Your task to perform on an android device: turn on the 12-hour format for clock Image 0: 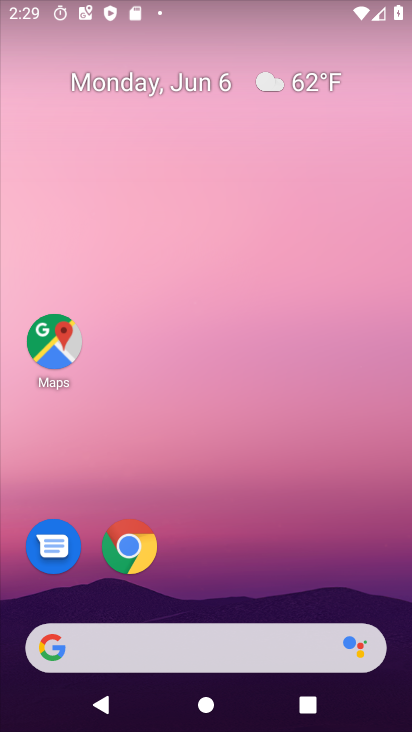
Step 0: drag from (267, 464) to (253, 118)
Your task to perform on an android device: turn on the 12-hour format for clock Image 1: 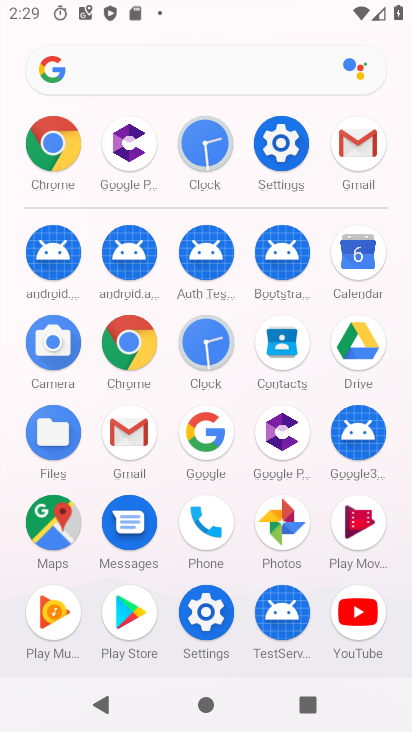
Step 1: click (205, 338)
Your task to perform on an android device: turn on the 12-hour format for clock Image 2: 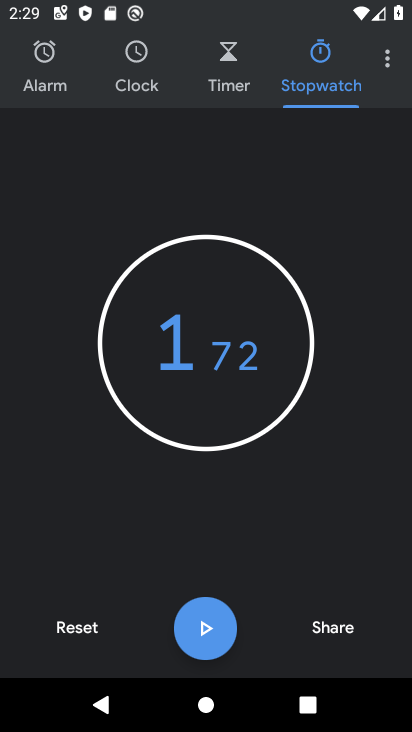
Step 2: click (390, 52)
Your task to perform on an android device: turn on the 12-hour format for clock Image 3: 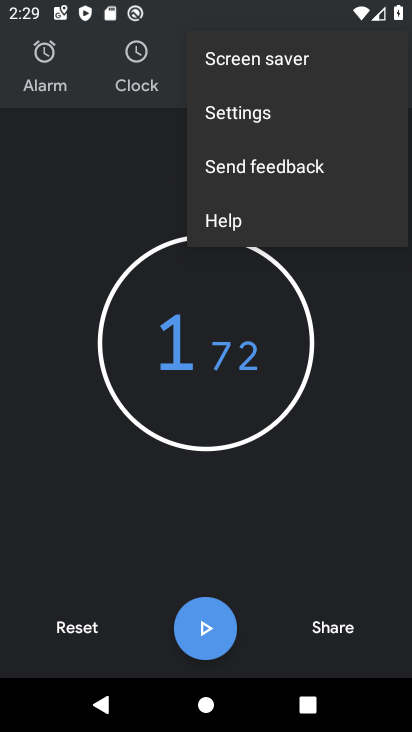
Step 3: click (275, 116)
Your task to perform on an android device: turn on the 12-hour format for clock Image 4: 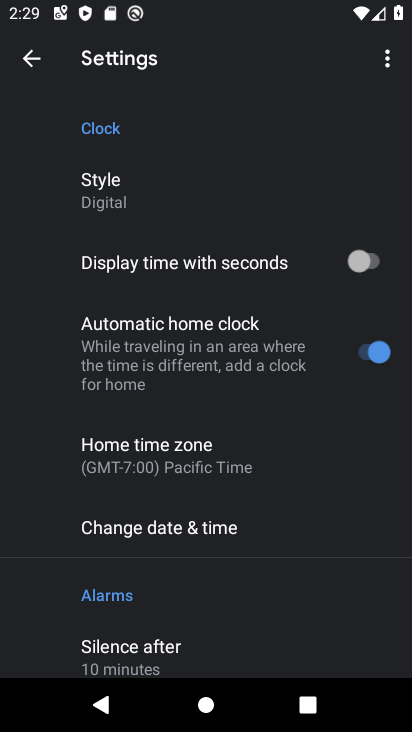
Step 4: click (183, 550)
Your task to perform on an android device: turn on the 12-hour format for clock Image 5: 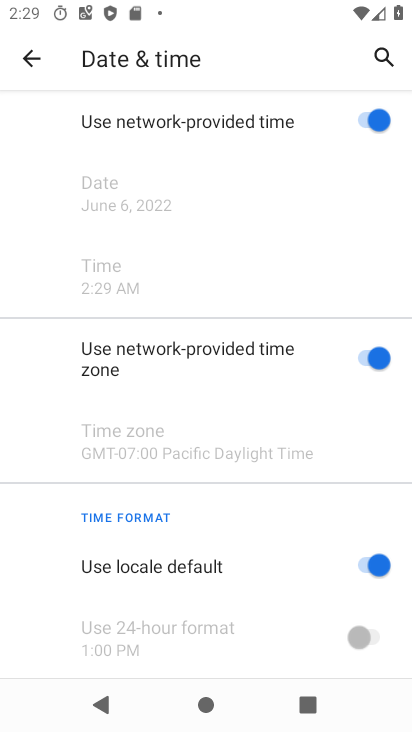
Step 5: task complete